Your task to perform on an android device: turn on location history Image 0: 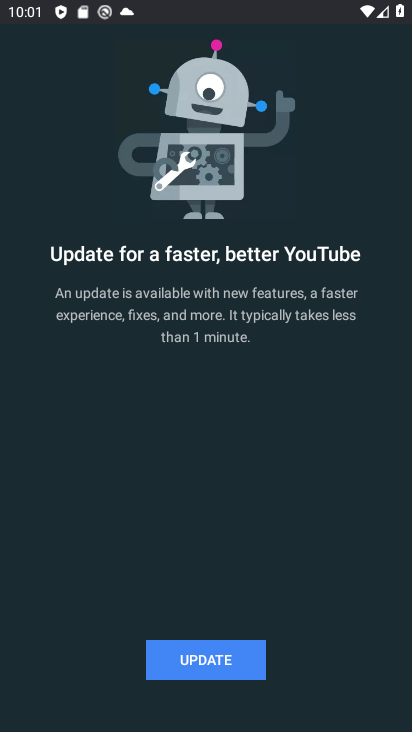
Step 0: press back button
Your task to perform on an android device: turn on location history Image 1: 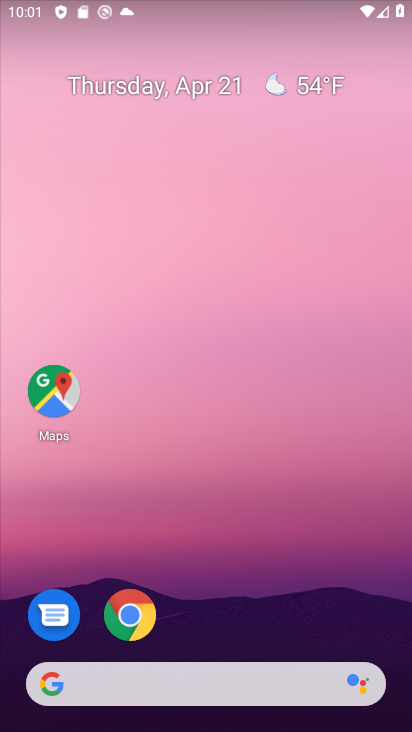
Step 1: drag from (302, 598) to (242, 145)
Your task to perform on an android device: turn on location history Image 2: 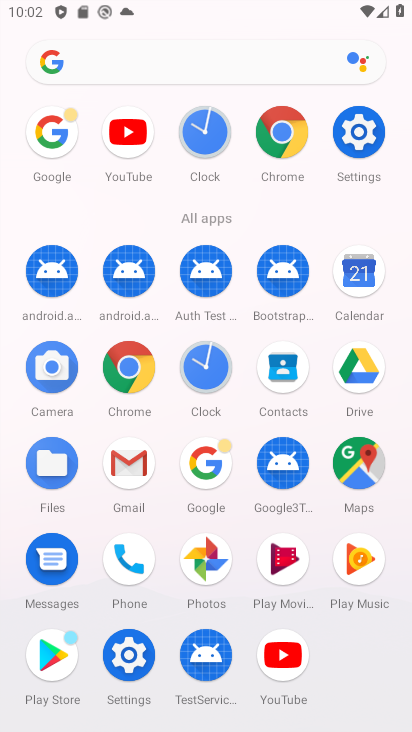
Step 2: click (128, 657)
Your task to perform on an android device: turn on location history Image 3: 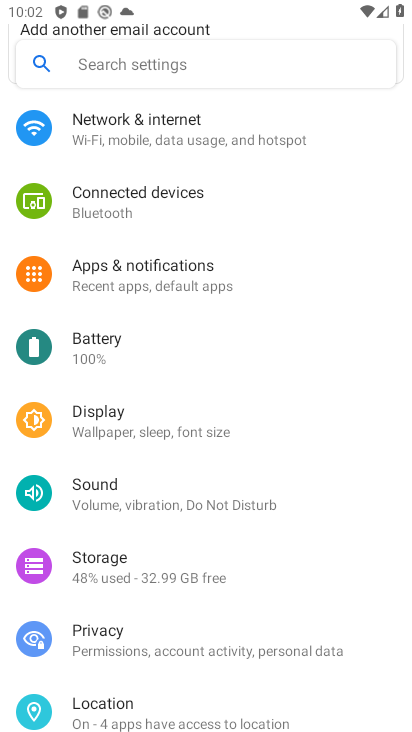
Step 3: drag from (162, 569) to (169, 320)
Your task to perform on an android device: turn on location history Image 4: 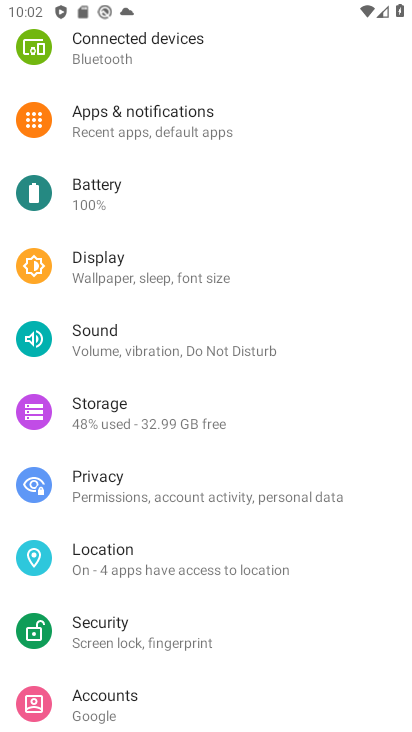
Step 4: click (141, 557)
Your task to perform on an android device: turn on location history Image 5: 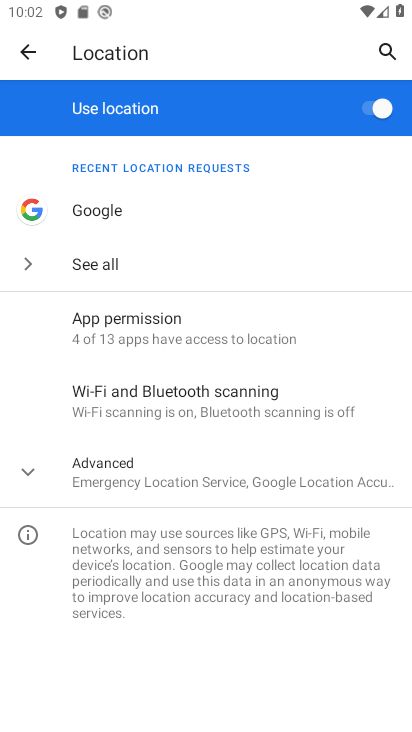
Step 5: drag from (214, 611) to (209, 370)
Your task to perform on an android device: turn on location history Image 6: 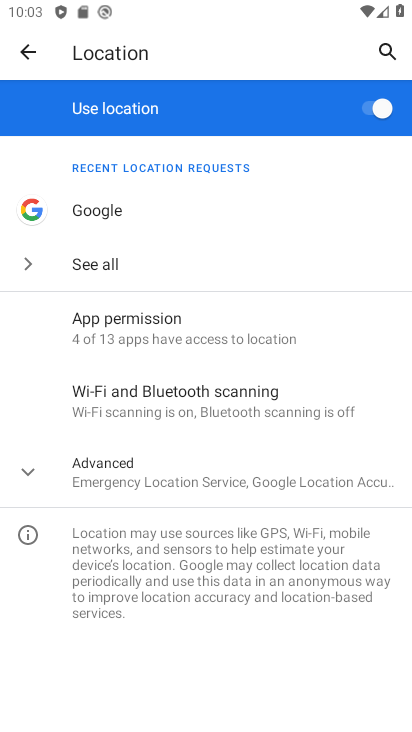
Step 6: click (171, 464)
Your task to perform on an android device: turn on location history Image 7: 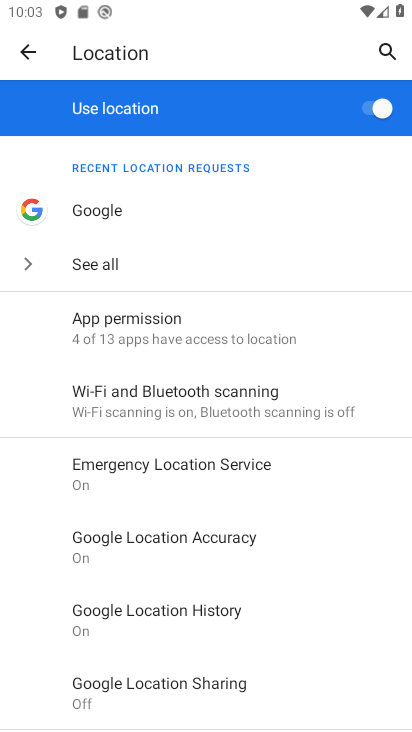
Step 7: click (224, 613)
Your task to perform on an android device: turn on location history Image 8: 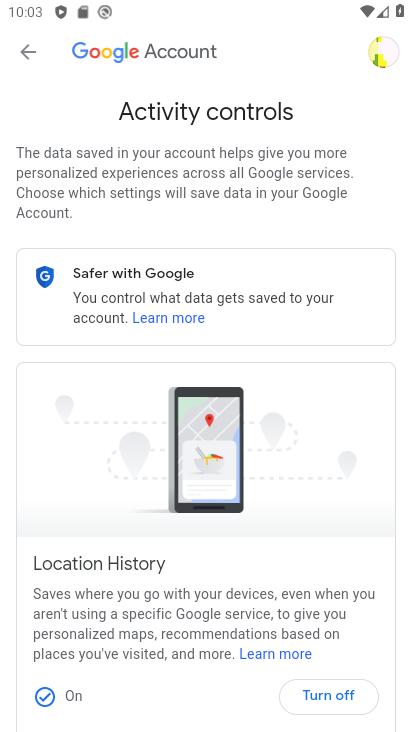
Step 8: task complete